Your task to perform on an android device: Set the phone to "Do not disturb". Image 0: 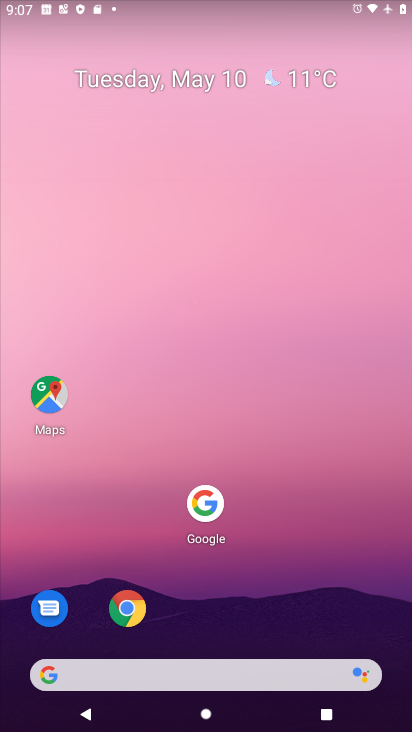
Step 0: drag from (231, 673) to (330, 108)
Your task to perform on an android device: Set the phone to "Do not disturb". Image 1: 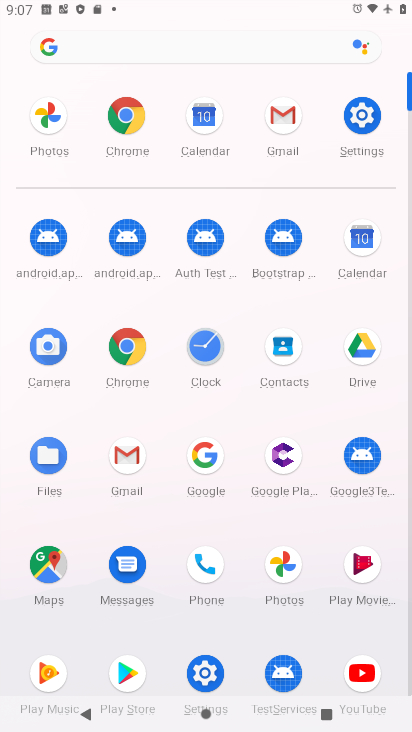
Step 1: click (369, 114)
Your task to perform on an android device: Set the phone to "Do not disturb". Image 2: 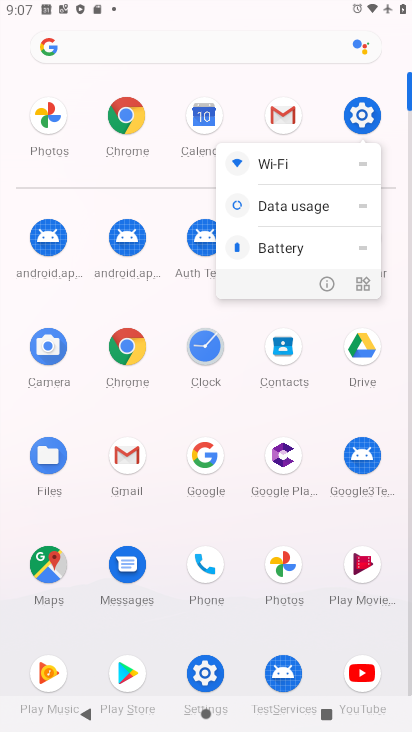
Step 2: click (363, 117)
Your task to perform on an android device: Set the phone to "Do not disturb". Image 3: 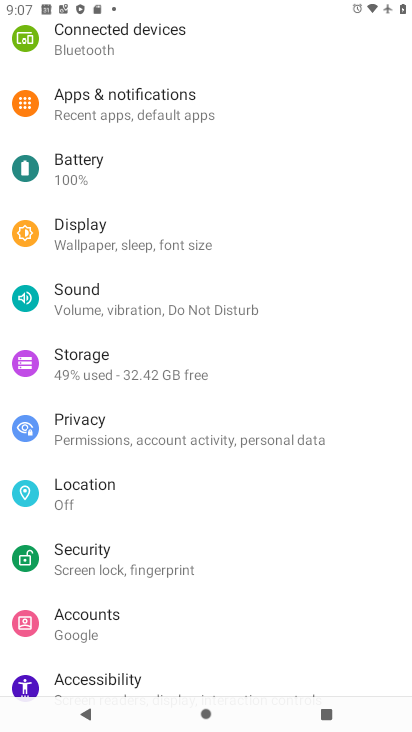
Step 3: click (102, 301)
Your task to perform on an android device: Set the phone to "Do not disturb". Image 4: 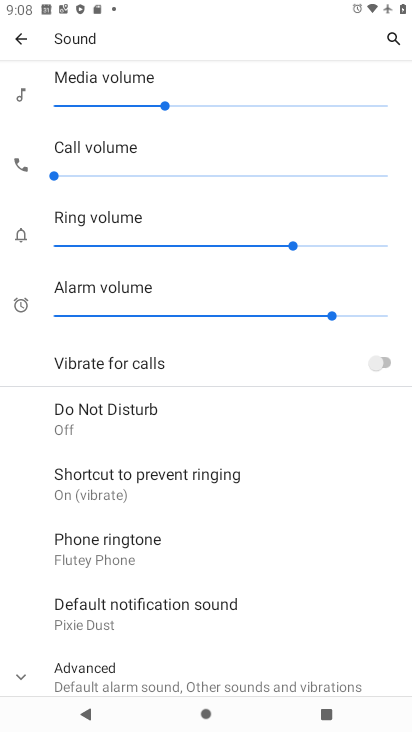
Step 4: click (113, 406)
Your task to perform on an android device: Set the phone to "Do not disturb". Image 5: 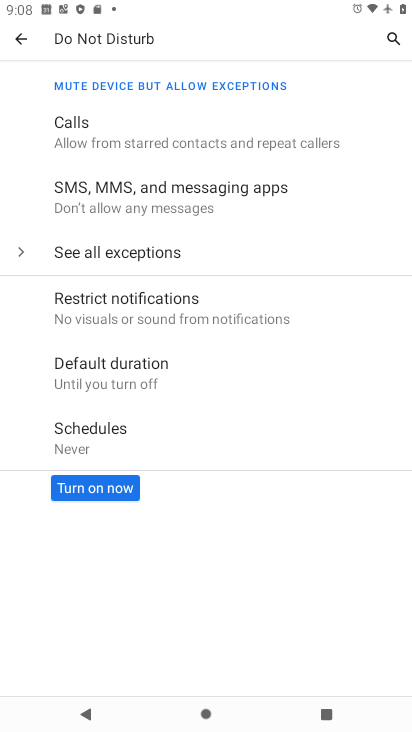
Step 5: click (73, 493)
Your task to perform on an android device: Set the phone to "Do not disturb". Image 6: 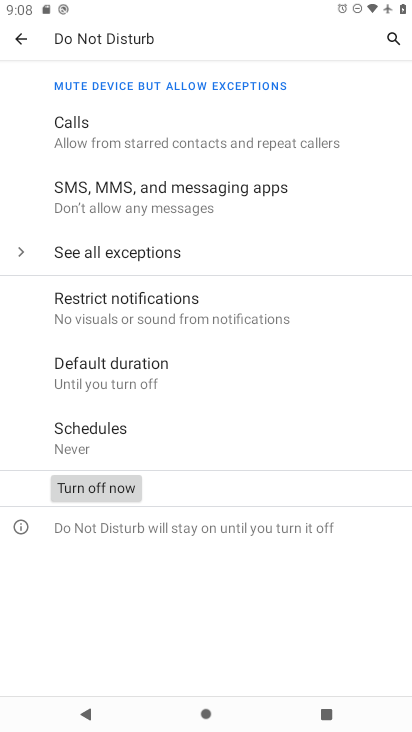
Step 6: task complete